Your task to perform on an android device: Check the news Image 0: 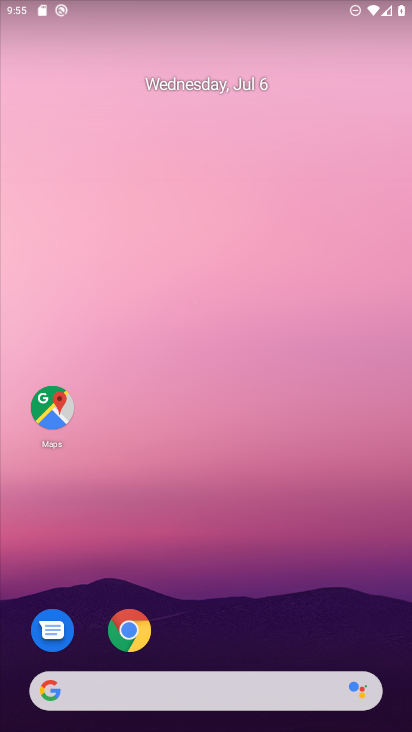
Step 0: press home button
Your task to perform on an android device: Check the news Image 1: 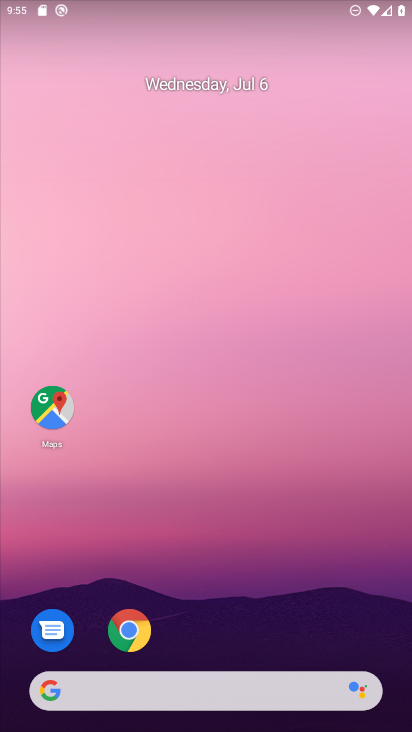
Step 1: click (129, 627)
Your task to perform on an android device: Check the news Image 2: 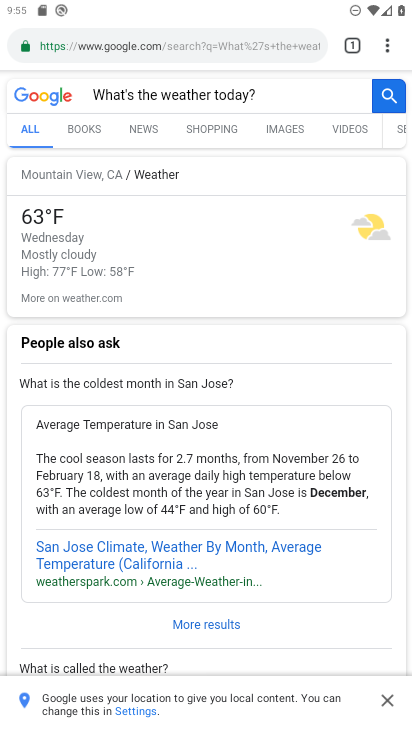
Step 2: click (150, 46)
Your task to perform on an android device: Check the news Image 3: 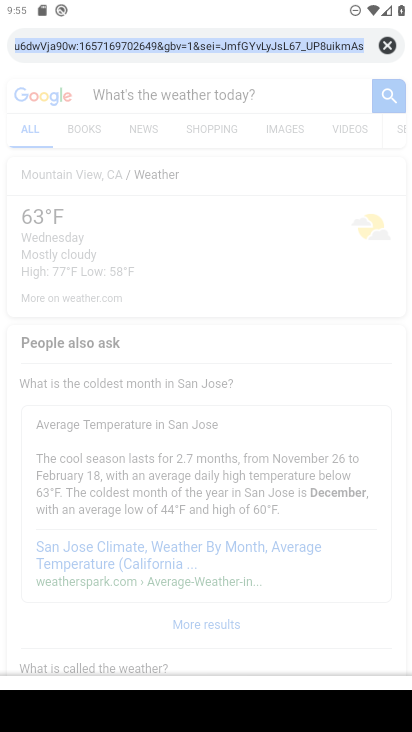
Step 3: click (388, 44)
Your task to perform on an android device: Check the news Image 4: 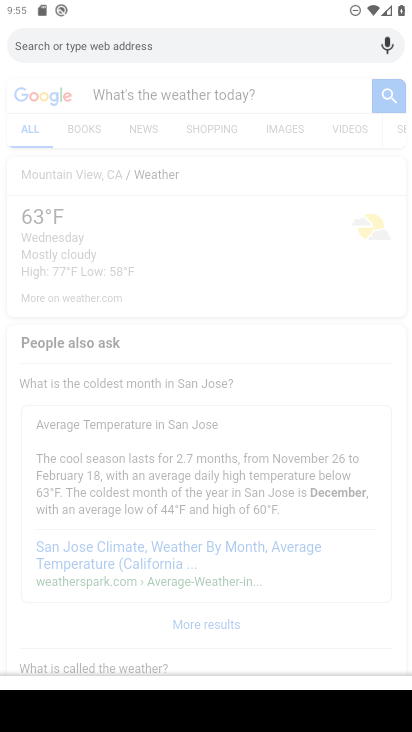
Step 4: type "check the news"
Your task to perform on an android device: Check the news Image 5: 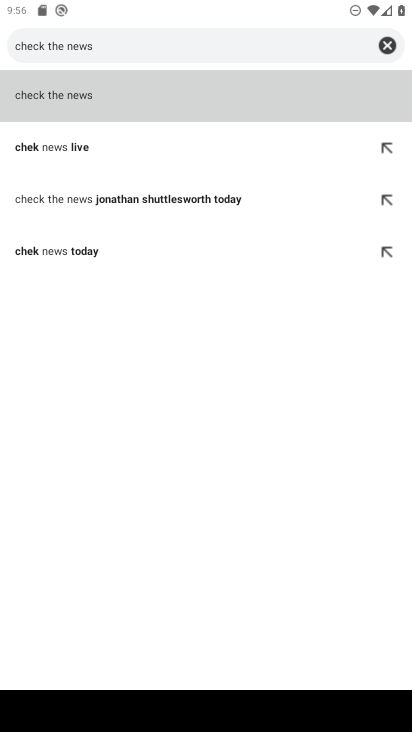
Step 5: click (65, 90)
Your task to perform on an android device: Check the news Image 6: 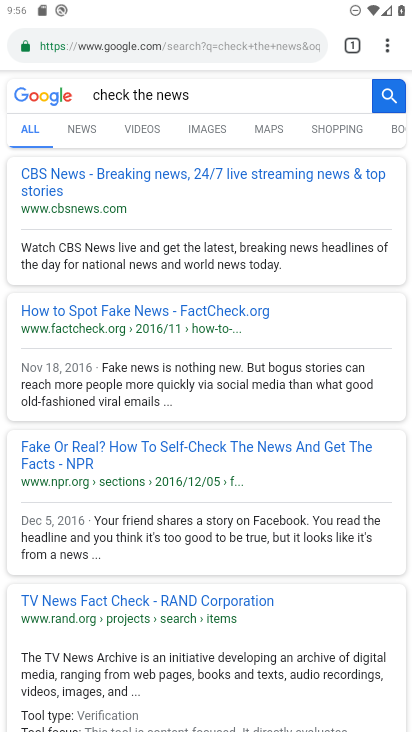
Step 6: task complete